Your task to perform on an android device: move an email to a new category in the gmail app Image 0: 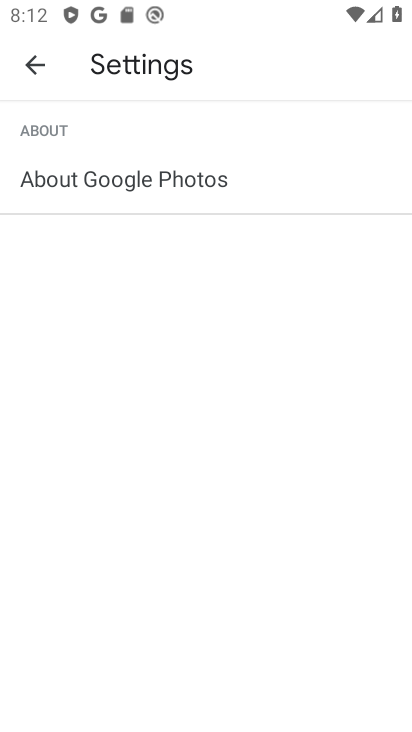
Step 0: task impossible